Your task to perform on an android device: What's the weather? Image 0: 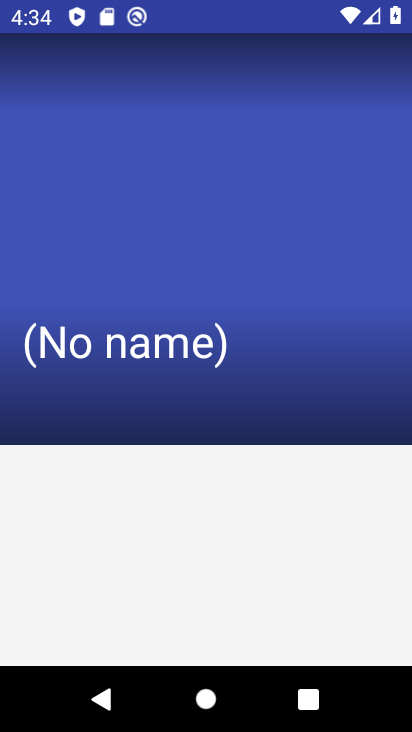
Step 0: drag from (345, 532) to (283, 162)
Your task to perform on an android device: What's the weather? Image 1: 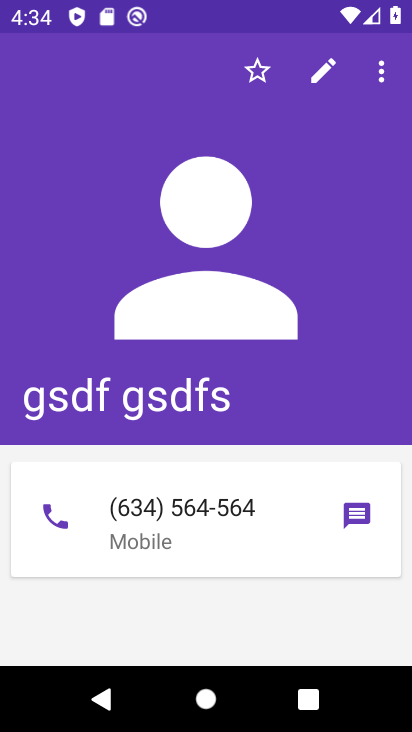
Step 1: press home button
Your task to perform on an android device: What's the weather? Image 2: 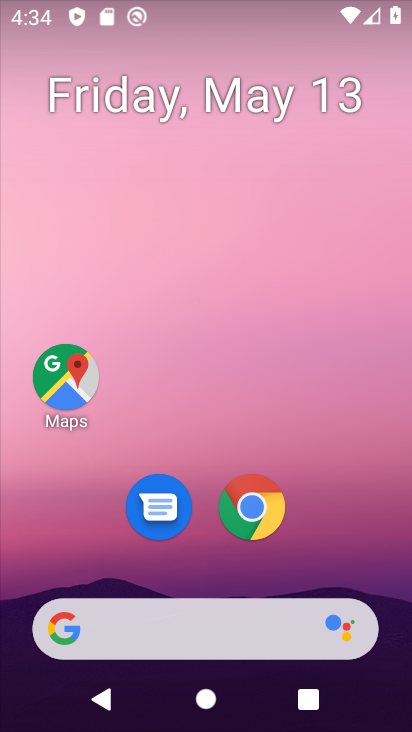
Step 2: drag from (323, 401) to (229, 64)
Your task to perform on an android device: What's the weather? Image 3: 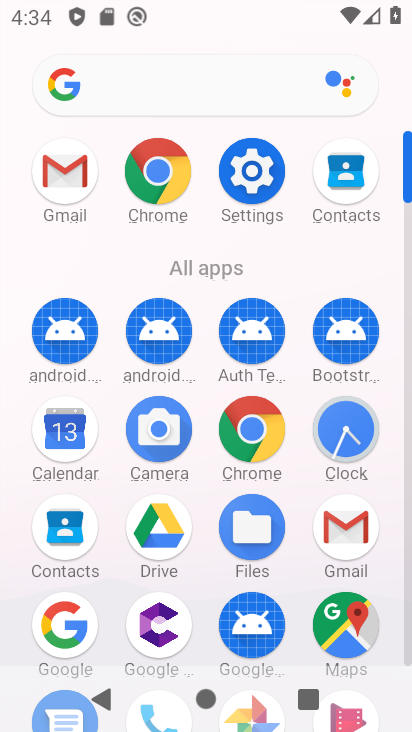
Step 3: click (63, 626)
Your task to perform on an android device: What's the weather? Image 4: 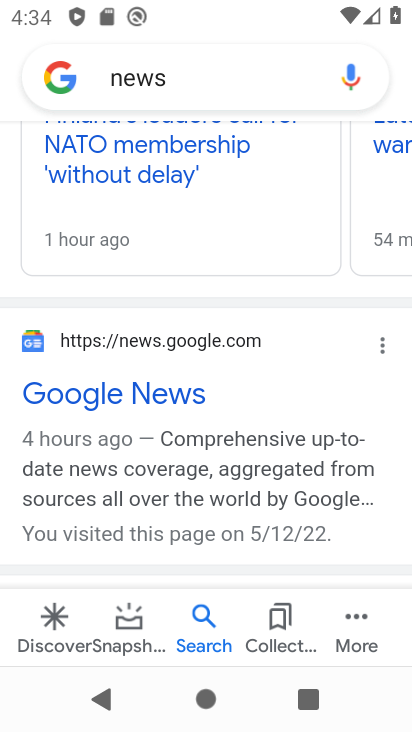
Step 4: drag from (279, 156) to (189, 714)
Your task to perform on an android device: What's the weather? Image 5: 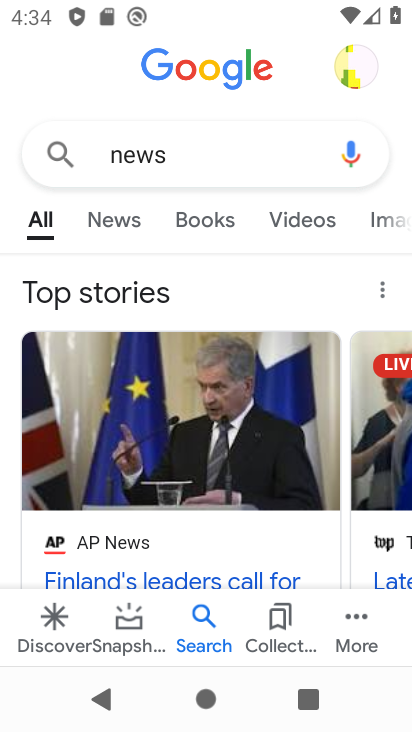
Step 5: click (194, 151)
Your task to perform on an android device: What's the weather? Image 6: 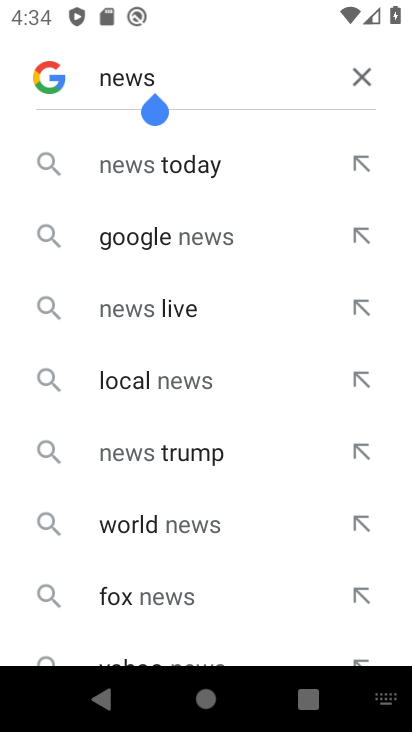
Step 6: click (356, 71)
Your task to perform on an android device: What's the weather? Image 7: 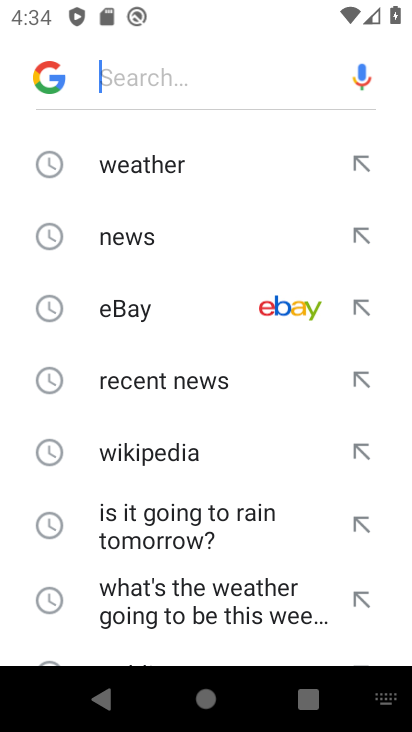
Step 7: click (181, 169)
Your task to perform on an android device: What's the weather? Image 8: 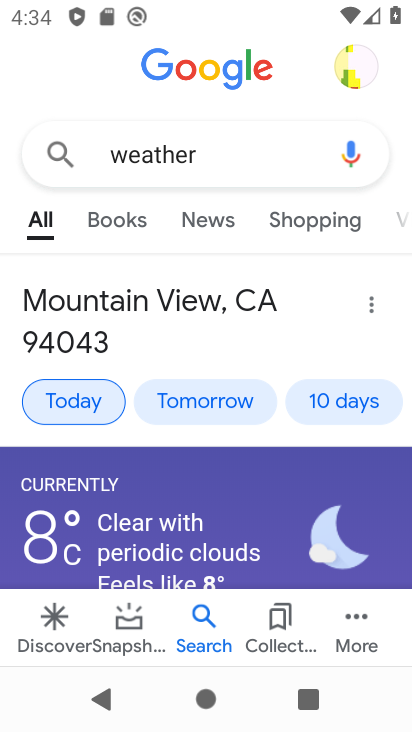
Step 8: task complete